Your task to perform on an android device: toggle notifications settings in the gmail app Image 0: 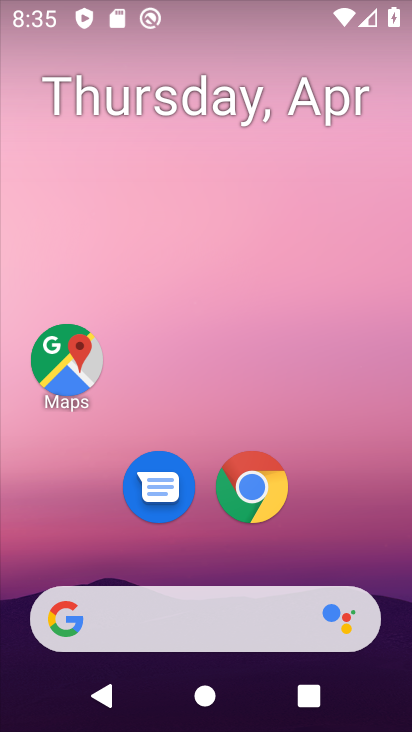
Step 0: drag from (217, 576) to (292, 184)
Your task to perform on an android device: toggle notifications settings in the gmail app Image 1: 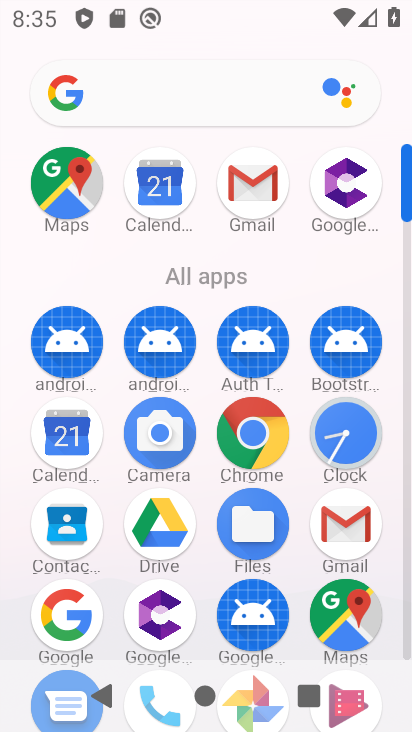
Step 1: click (262, 197)
Your task to perform on an android device: toggle notifications settings in the gmail app Image 2: 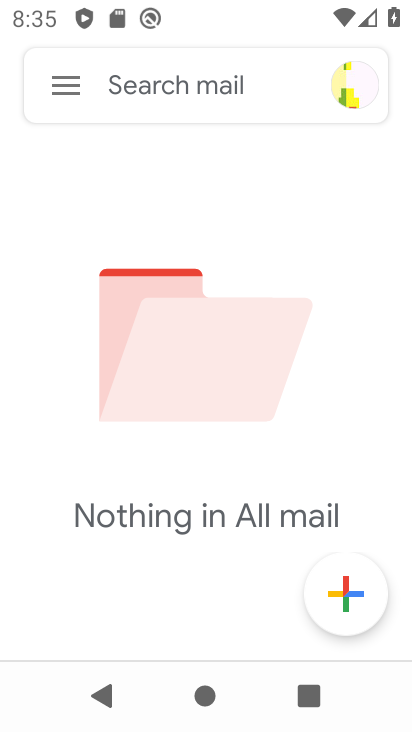
Step 2: click (61, 74)
Your task to perform on an android device: toggle notifications settings in the gmail app Image 3: 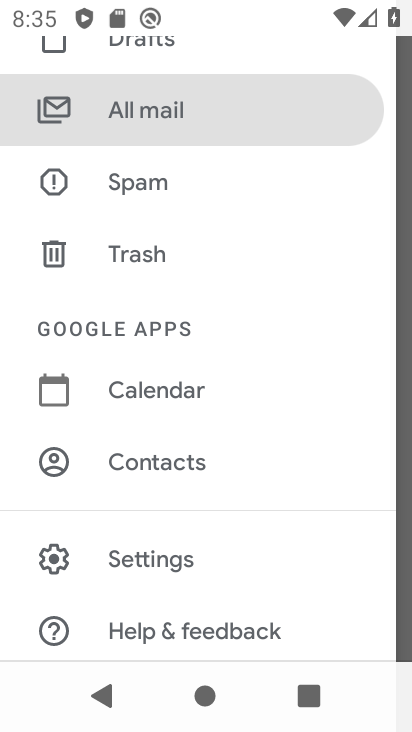
Step 3: click (167, 568)
Your task to perform on an android device: toggle notifications settings in the gmail app Image 4: 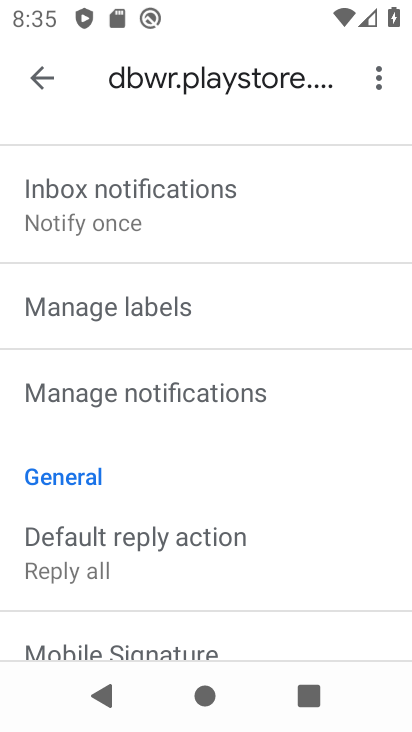
Step 4: click (139, 395)
Your task to perform on an android device: toggle notifications settings in the gmail app Image 5: 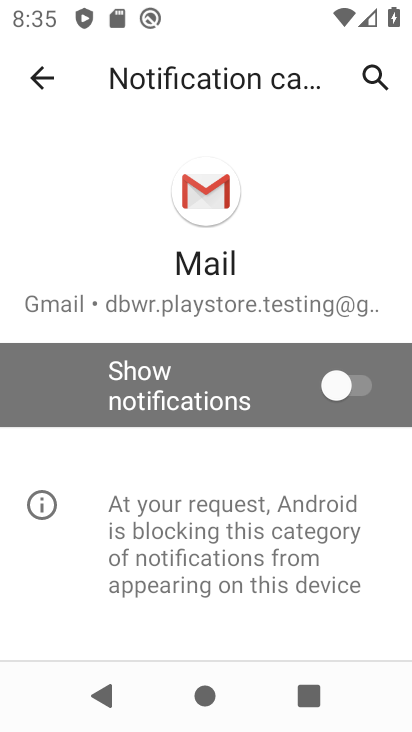
Step 5: click (354, 381)
Your task to perform on an android device: toggle notifications settings in the gmail app Image 6: 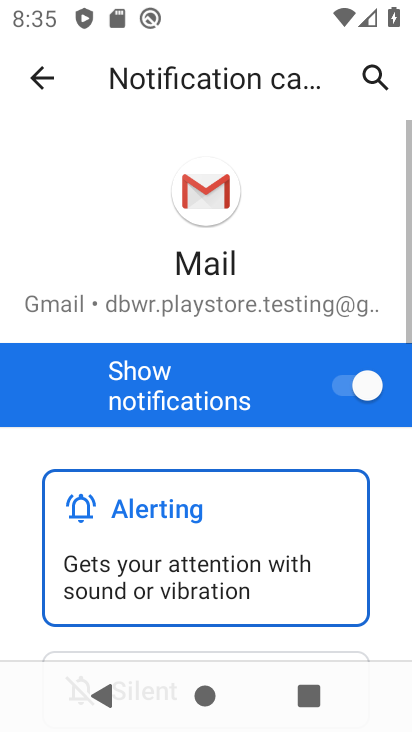
Step 6: task complete